Your task to perform on an android device: add a contact in the contacts app Image 0: 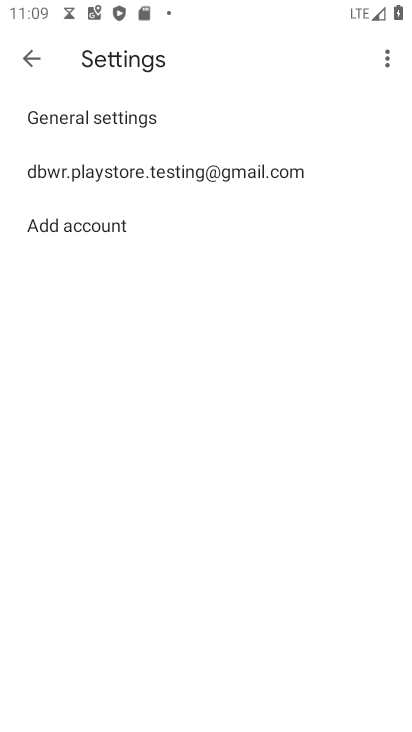
Step 0: press home button
Your task to perform on an android device: add a contact in the contacts app Image 1: 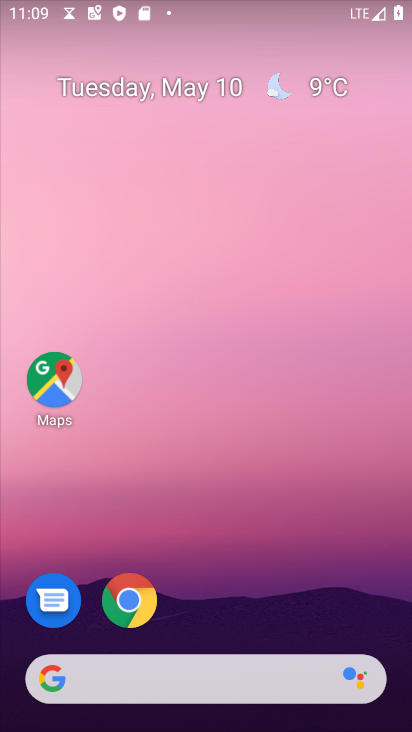
Step 1: drag from (229, 574) to (191, 79)
Your task to perform on an android device: add a contact in the contacts app Image 2: 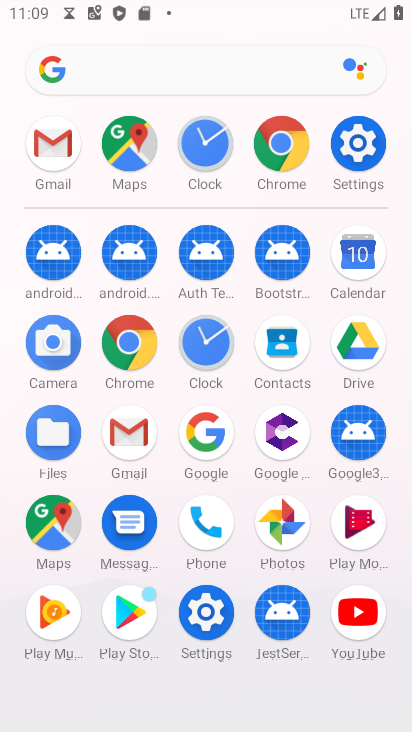
Step 2: click (278, 339)
Your task to perform on an android device: add a contact in the contacts app Image 3: 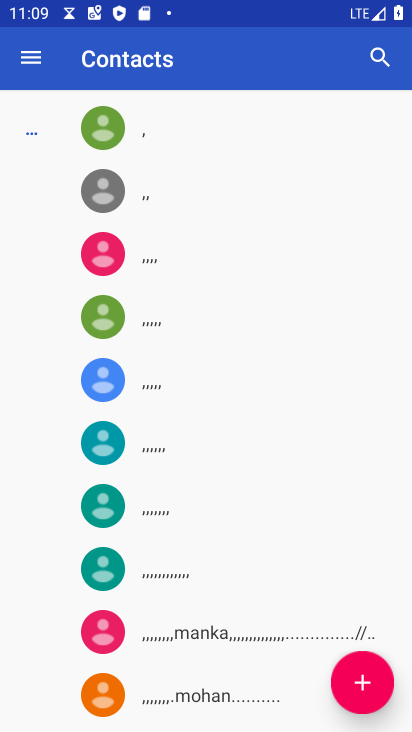
Step 3: click (363, 678)
Your task to perform on an android device: add a contact in the contacts app Image 4: 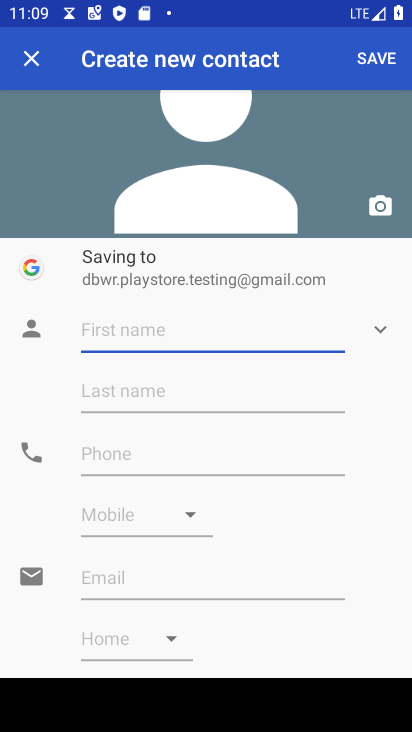
Step 4: type "tyert"
Your task to perform on an android device: add a contact in the contacts app Image 5: 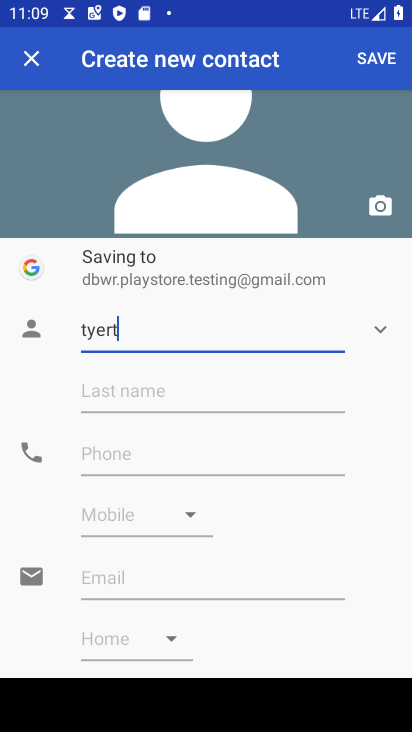
Step 5: type ""
Your task to perform on an android device: add a contact in the contacts app Image 6: 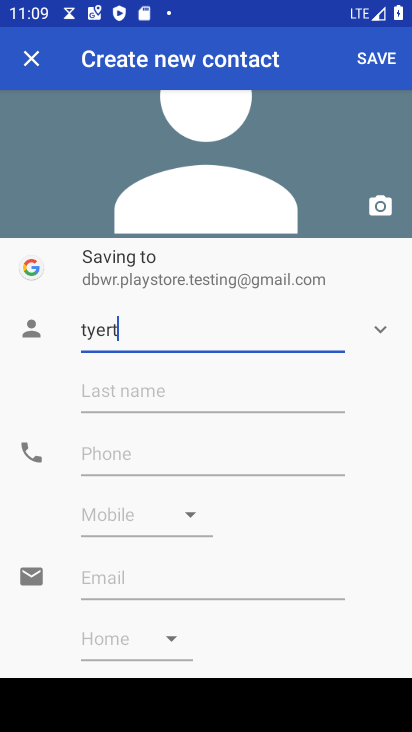
Step 6: click (274, 390)
Your task to perform on an android device: add a contact in the contacts app Image 7: 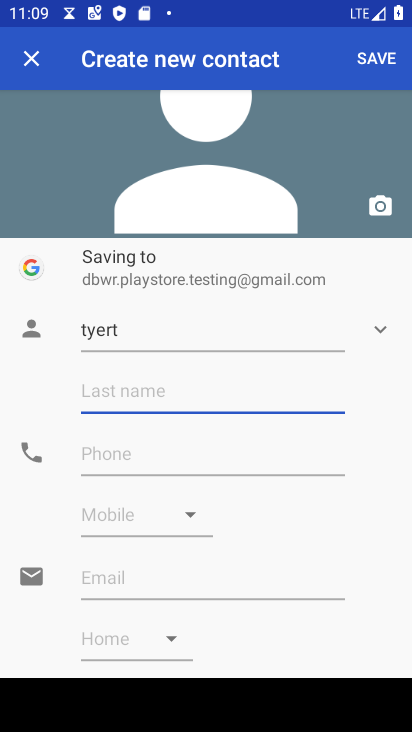
Step 7: type "rtyert"
Your task to perform on an android device: add a contact in the contacts app Image 8: 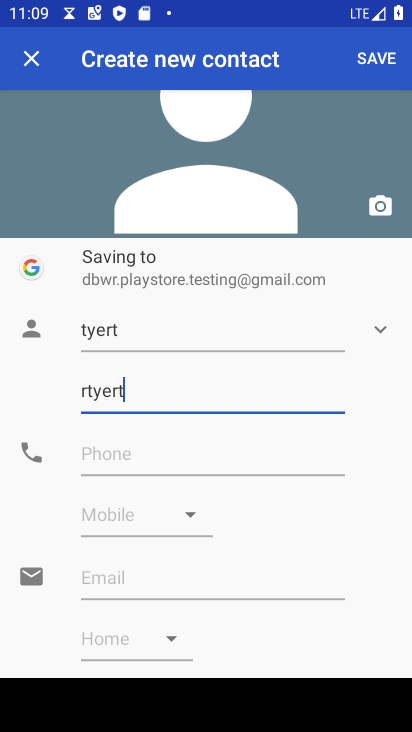
Step 8: type ""
Your task to perform on an android device: add a contact in the contacts app Image 9: 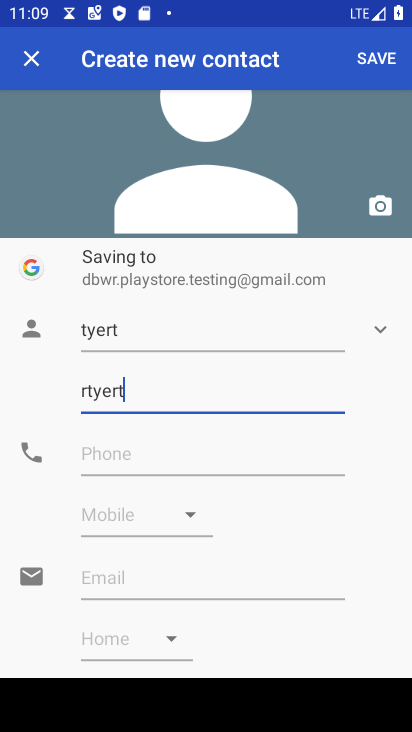
Step 9: click (250, 452)
Your task to perform on an android device: add a contact in the contacts app Image 10: 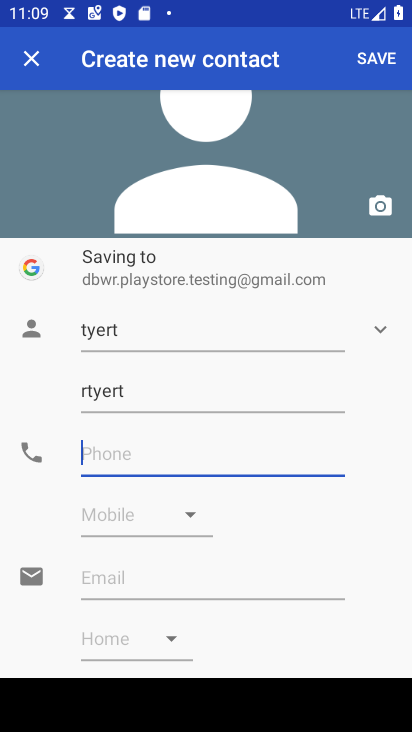
Step 10: type "456345634"
Your task to perform on an android device: add a contact in the contacts app Image 11: 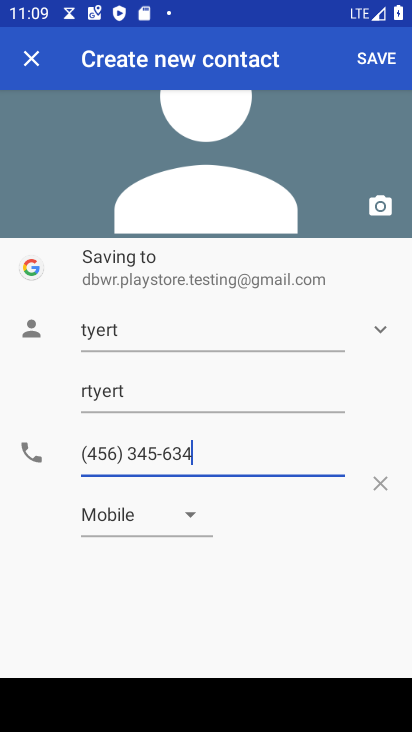
Step 11: type ""
Your task to perform on an android device: add a contact in the contacts app Image 12: 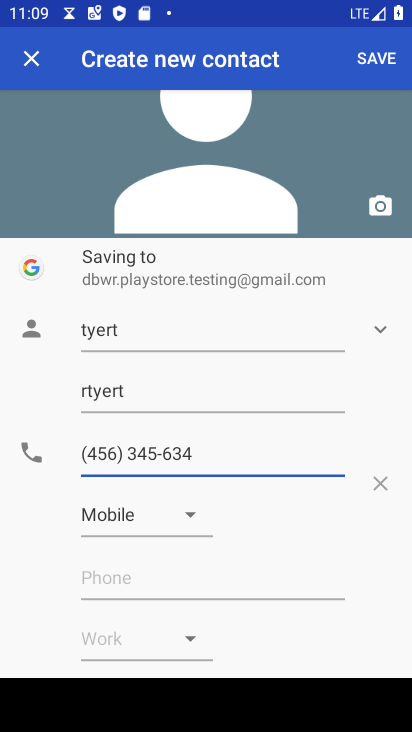
Step 12: click (384, 57)
Your task to perform on an android device: add a contact in the contacts app Image 13: 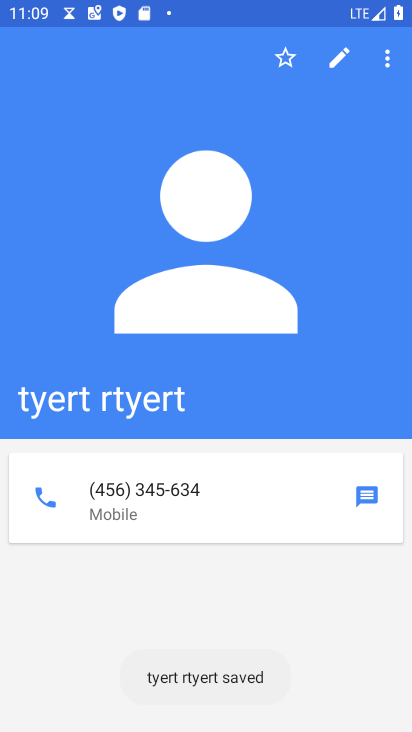
Step 13: task complete